Your task to perform on an android device: open a bookmark in the chrome app Image 0: 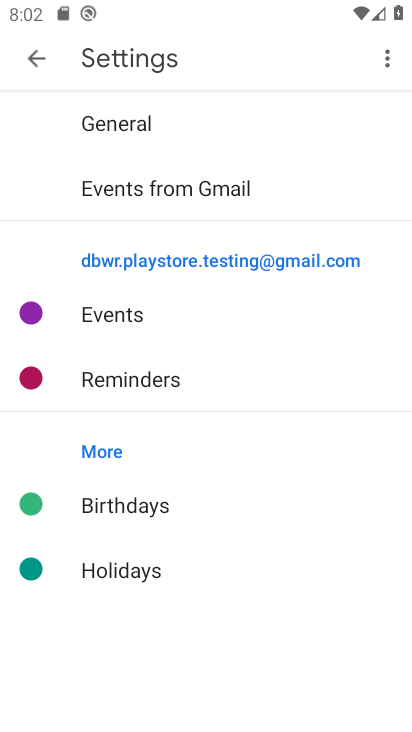
Step 0: press home button
Your task to perform on an android device: open a bookmark in the chrome app Image 1: 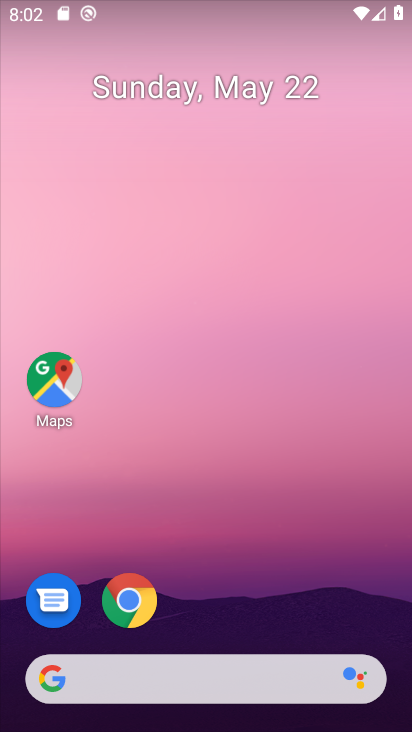
Step 1: click (129, 604)
Your task to perform on an android device: open a bookmark in the chrome app Image 2: 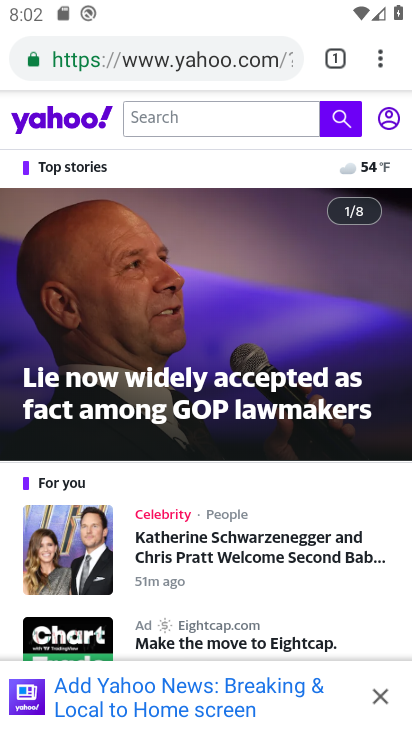
Step 2: click (379, 57)
Your task to perform on an android device: open a bookmark in the chrome app Image 3: 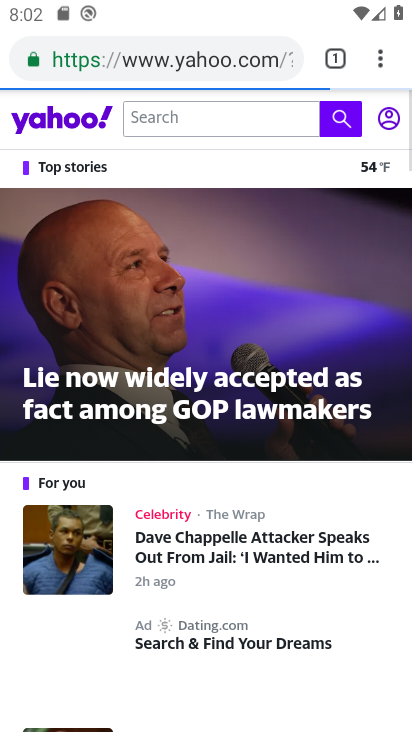
Step 3: click (337, 53)
Your task to perform on an android device: open a bookmark in the chrome app Image 4: 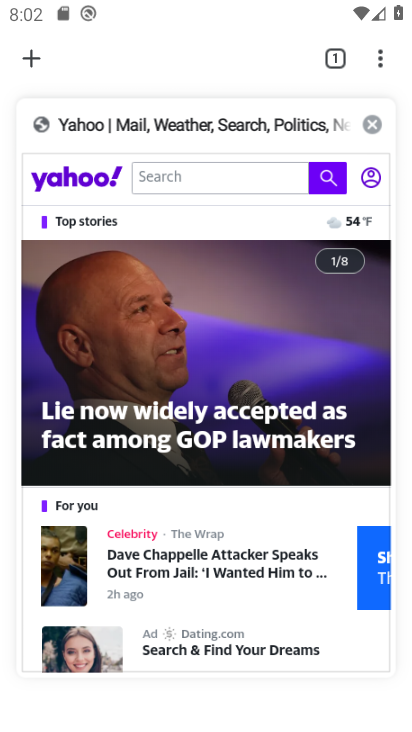
Step 4: click (367, 128)
Your task to perform on an android device: open a bookmark in the chrome app Image 5: 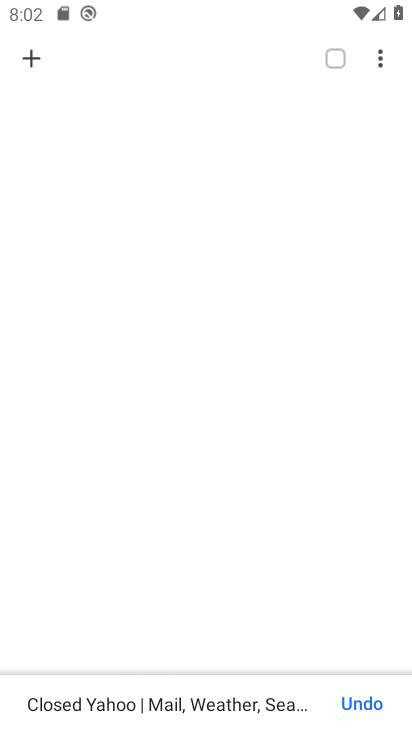
Step 5: click (21, 56)
Your task to perform on an android device: open a bookmark in the chrome app Image 6: 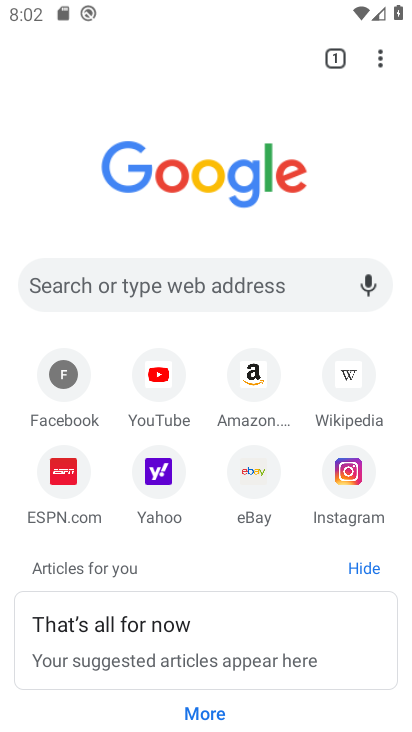
Step 6: click (378, 56)
Your task to perform on an android device: open a bookmark in the chrome app Image 7: 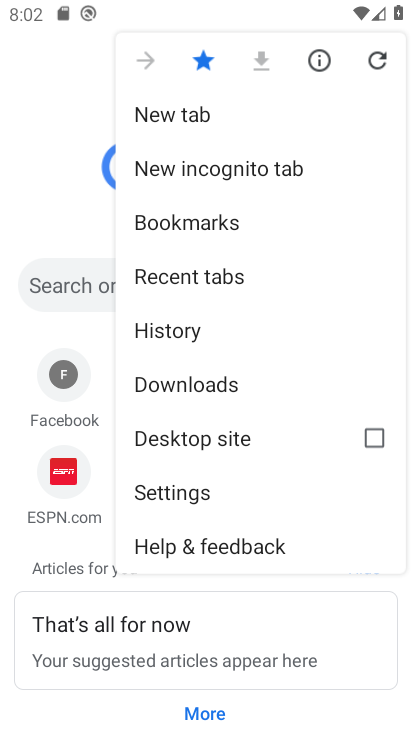
Step 7: click (198, 227)
Your task to perform on an android device: open a bookmark in the chrome app Image 8: 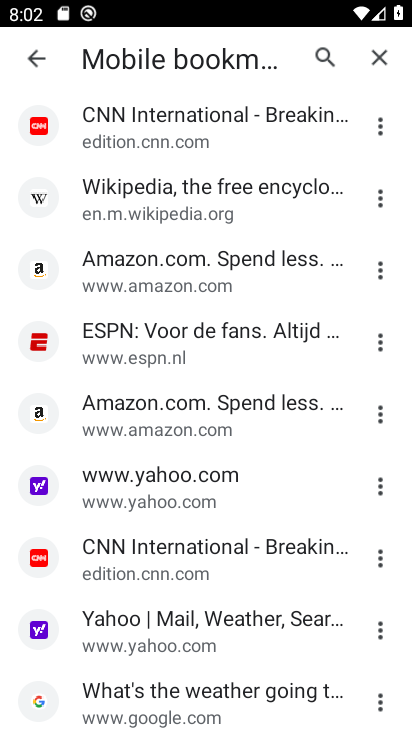
Step 8: task complete